Your task to perform on an android device: set the stopwatch Image 0: 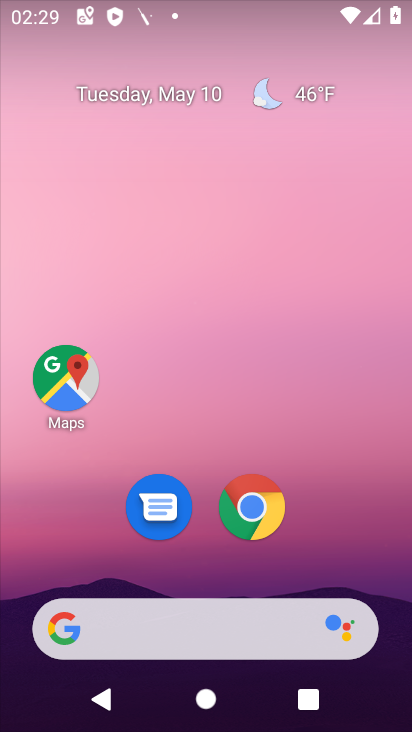
Step 0: drag from (230, 661) to (392, 213)
Your task to perform on an android device: set the stopwatch Image 1: 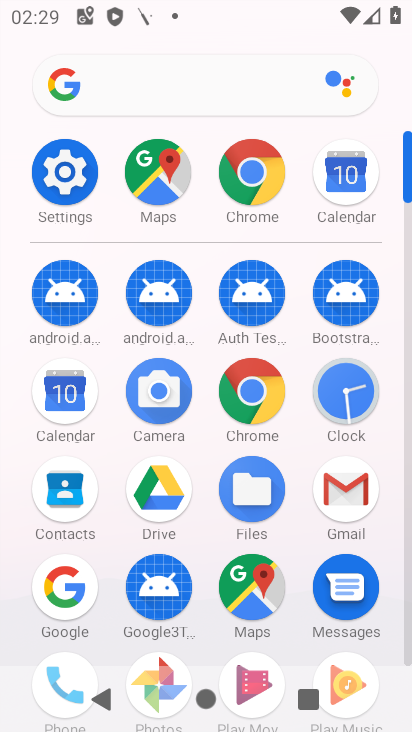
Step 1: click (338, 379)
Your task to perform on an android device: set the stopwatch Image 2: 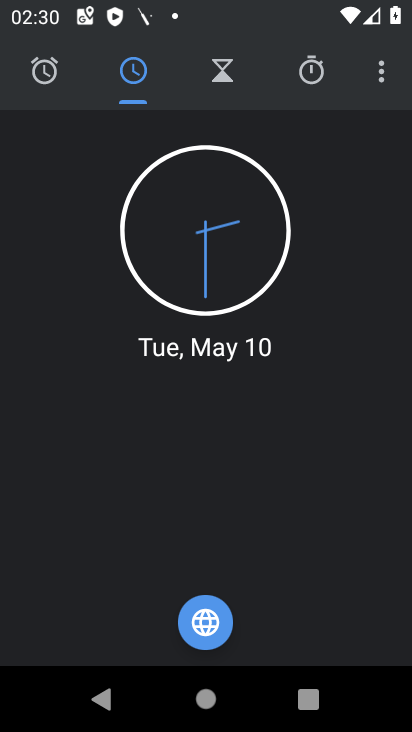
Step 2: click (300, 78)
Your task to perform on an android device: set the stopwatch Image 3: 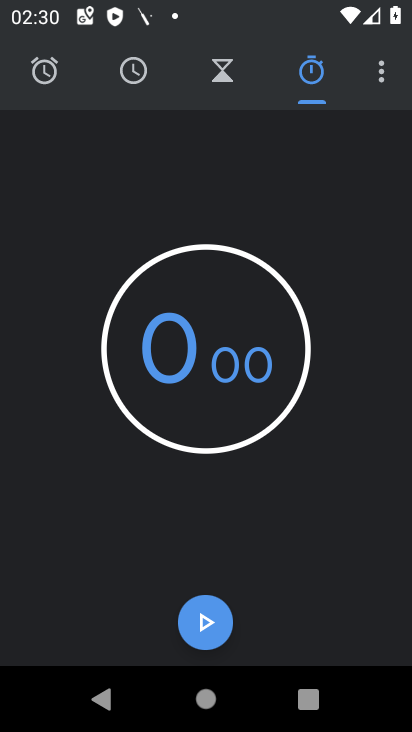
Step 3: click (208, 623)
Your task to perform on an android device: set the stopwatch Image 4: 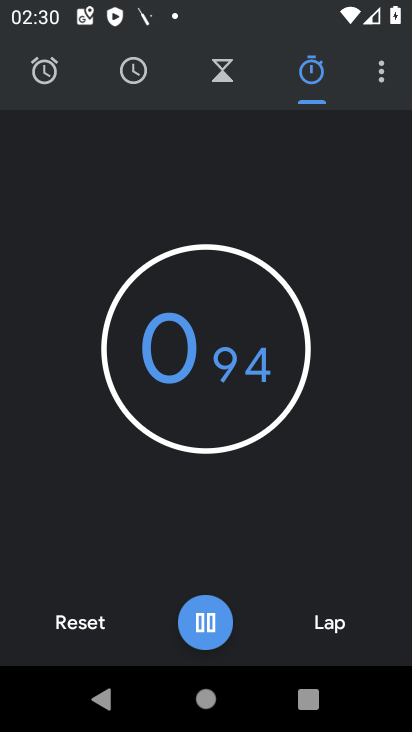
Step 4: click (208, 620)
Your task to perform on an android device: set the stopwatch Image 5: 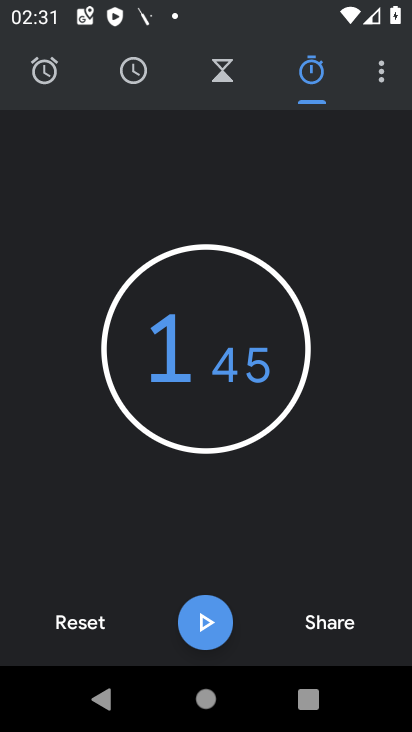
Step 5: task complete